Your task to perform on an android device: open device folders in google photos Image 0: 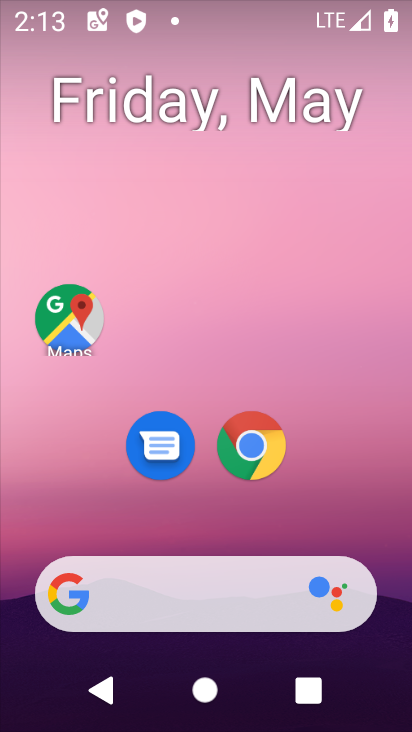
Step 0: press home button
Your task to perform on an android device: open device folders in google photos Image 1: 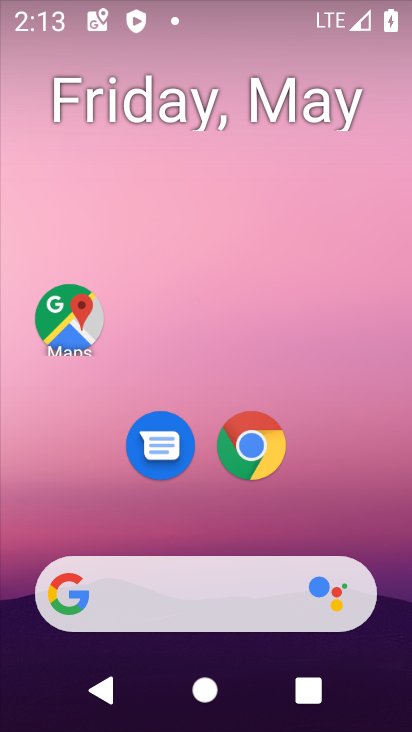
Step 1: drag from (214, 526) to (200, 55)
Your task to perform on an android device: open device folders in google photos Image 2: 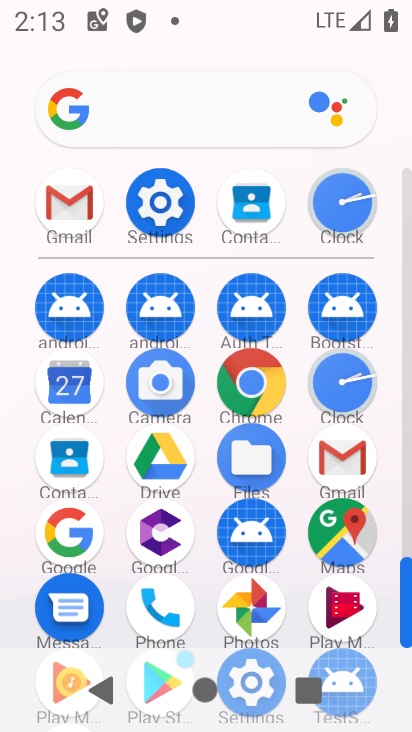
Step 2: click (247, 599)
Your task to perform on an android device: open device folders in google photos Image 3: 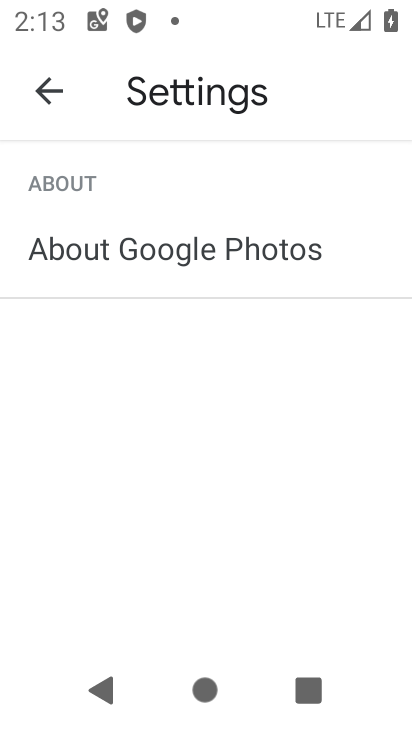
Step 3: press home button
Your task to perform on an android device: open device folders in google photos Image 4: 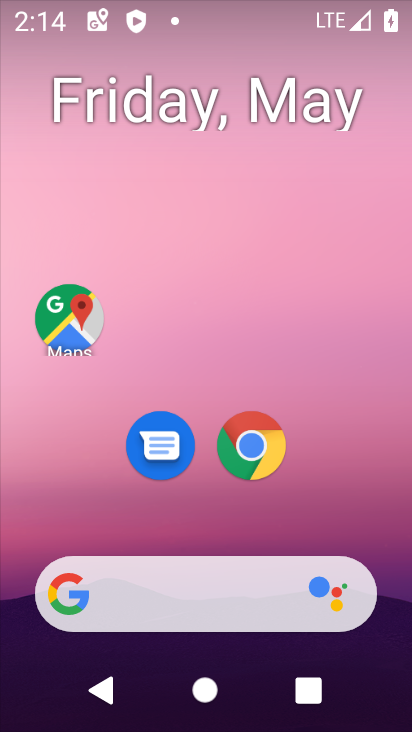
Step 4: drag from (211, 526) to (225, 79)
Your task to perform on an android device: open device folders in google photos Image 5: 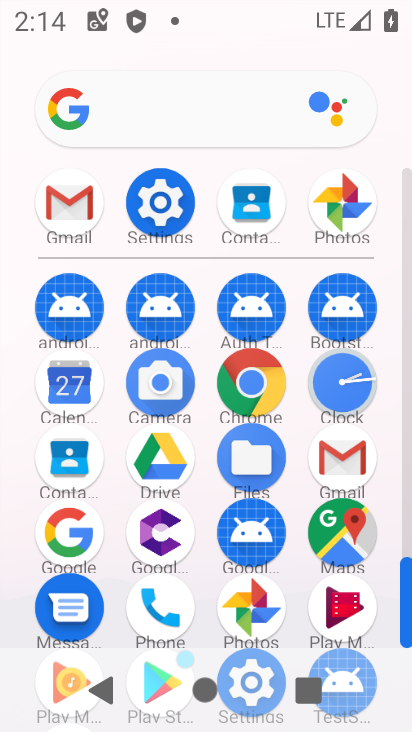
Step 5: click (250, 597)
Your task to perform on an android device: open device folders in google photos Image 6: 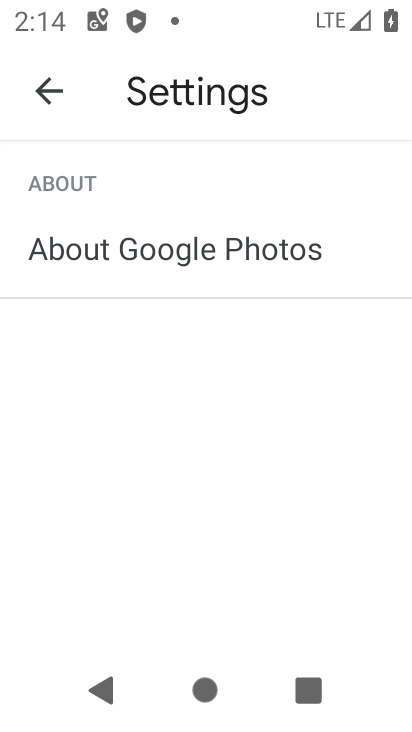
Step 6: click (55, 93)
Your task to perform on an android device: open device folders in google photos Image 7: 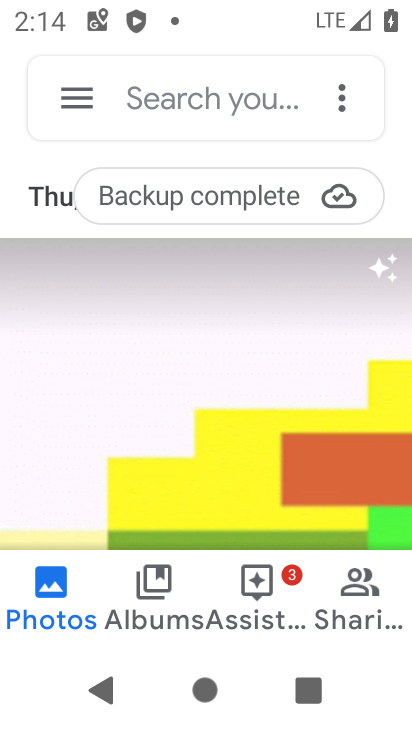
Step 7: click (72, 88)
Your task to perform on an android device: open device folders in google photos Image 8: 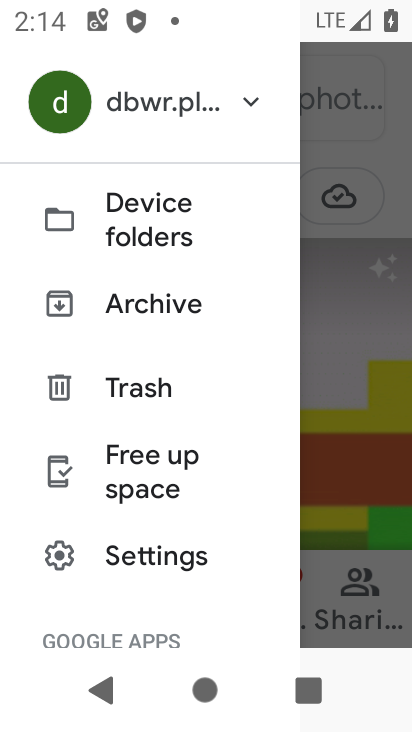
Step 8: click (103, 214)
Your task to perform on an android device: open device folders in google photos Image 9: 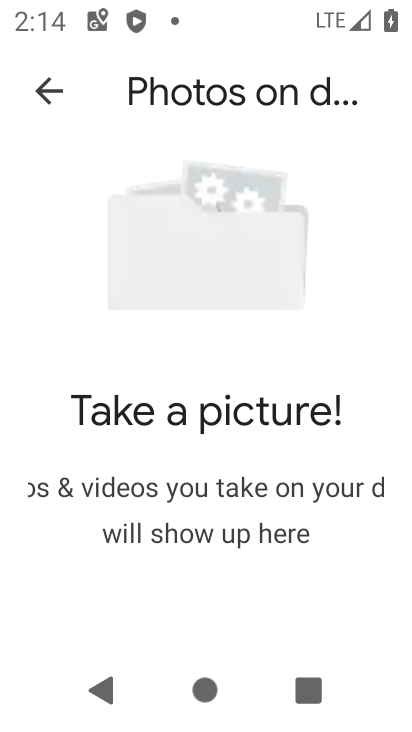
Step 9: task complete